Your task to perform on an android device: turn off translation in the chrome app Image 0: 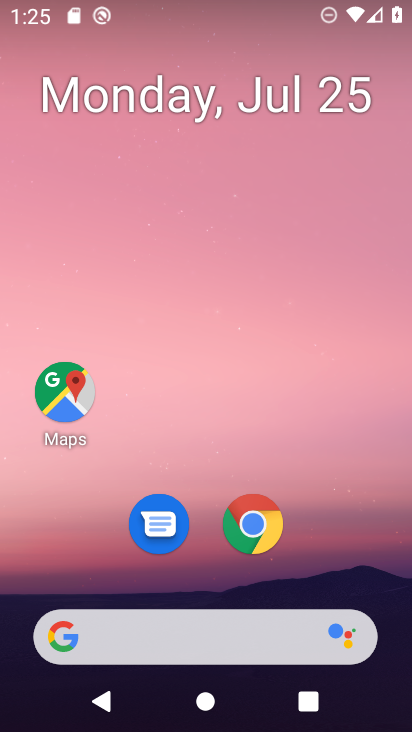
Step 0: click (251, 529)
Your task to perform on an android device: turn off translation in the chrome app Image 1: 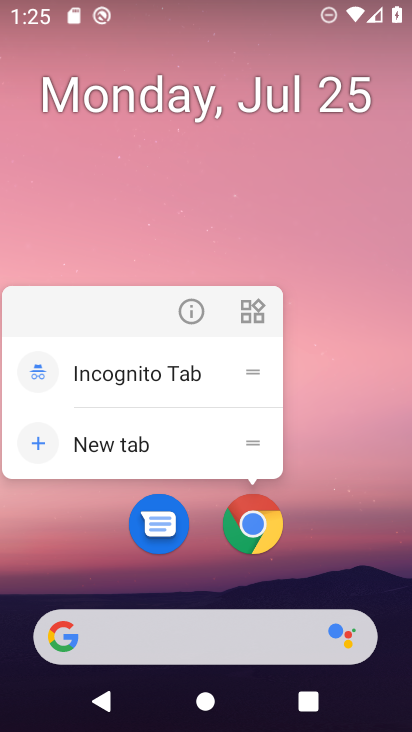
Step 1: click (251, 530)
Your task to perform on an android device: turn off translation in the chrome app Image 2: 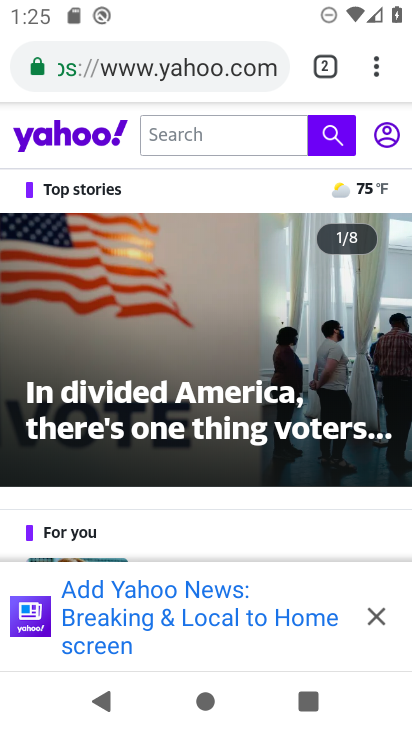
Step 2: drag from (374, 62) to (239, 527)
Your task to perform on an android device: turn off translation in the chrome app Image 3: 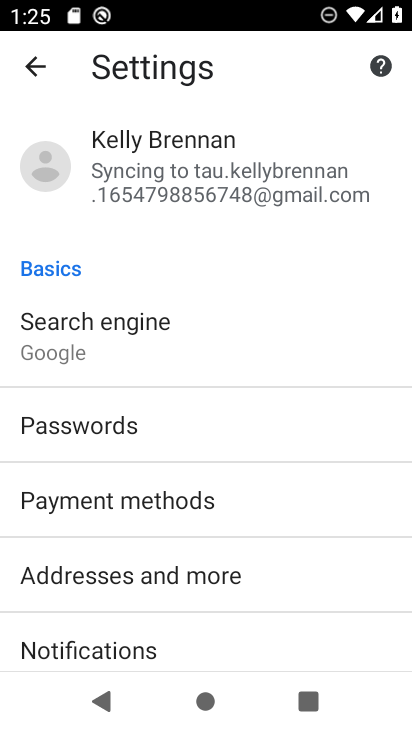
Step 3: drag from (213, 630) to (332, 187)
Your task to perform on an android device: turn off translation in the chrome app Image 4: 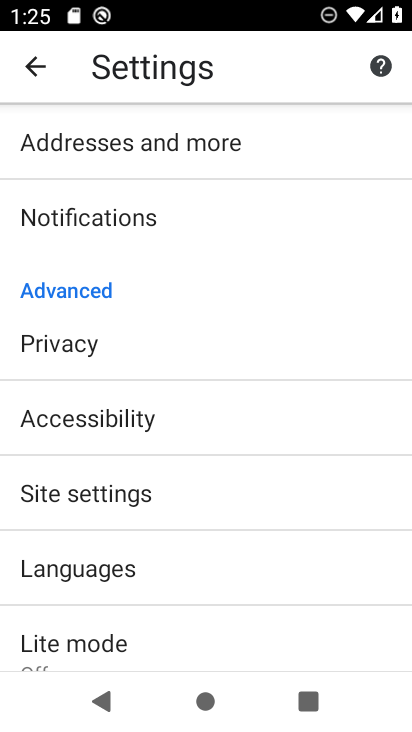
Step 4: click (130, 566)
Your task to perform on an android device: turn off translation in the chrome app Image 5: 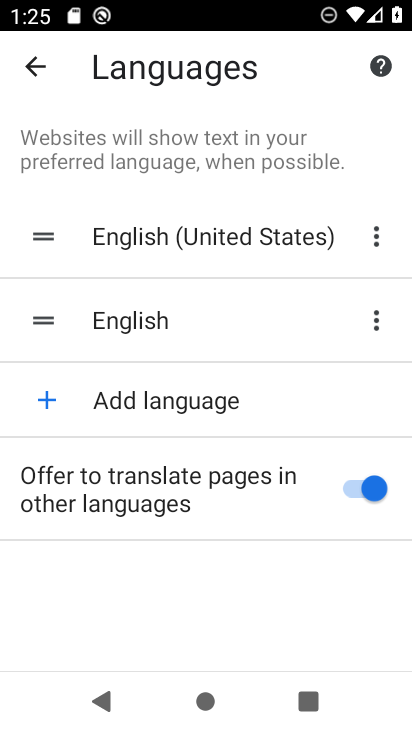
Step 5: click (353, 488)
Your task to perform on an android device: turn off translation in the chrome app Image 6: 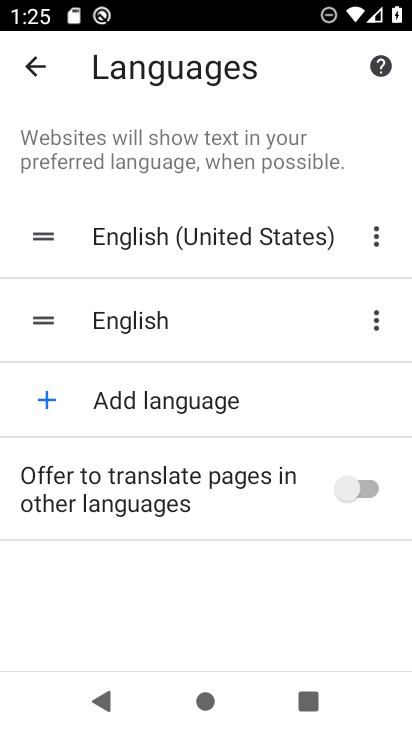
Step 6: task complete